Your task to perform on an android device: turn off translation in the chrome app Image 0: 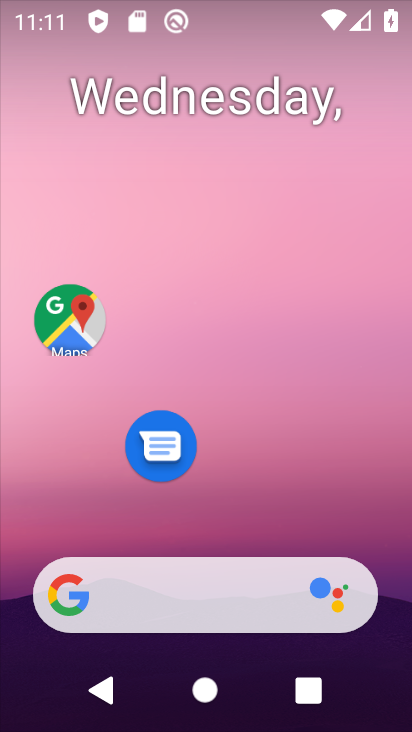
Step 0: drag from (262, 476) to (66, 75)
Your task to perform on an android device: turn off translation in the chrome app Image 1: 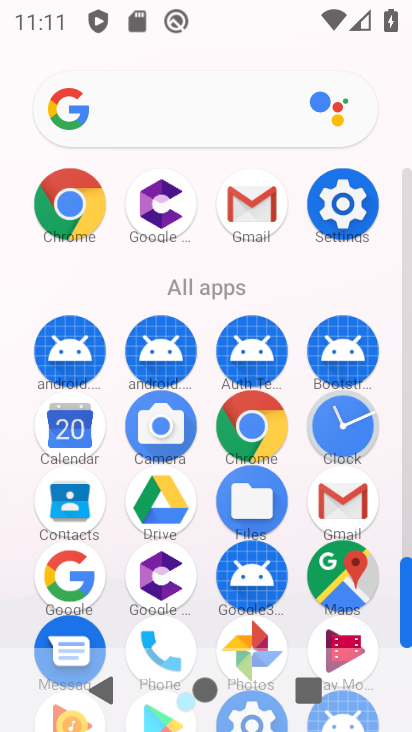
Step 1: click (74, 211)
Your task to perform on an android device: turn off translation in the chrome app Image 2: 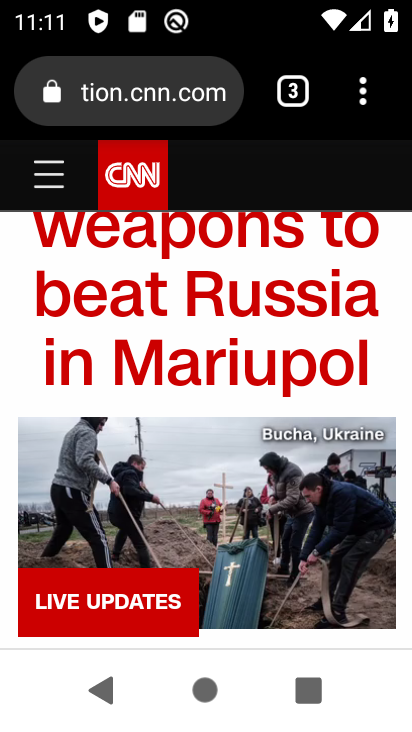
Step 2: drag from (361, 97) to (118, 473)
Your task to perform on an android device: turn off translation in the chrome app Image 3: 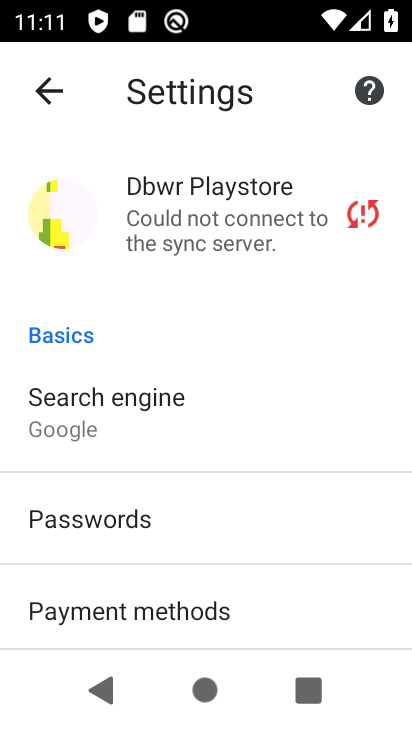
Step 3: drag from (237, 600) to (246, 223)
Your task to perform on an android device: turn off translation in the chrome app Image 4: 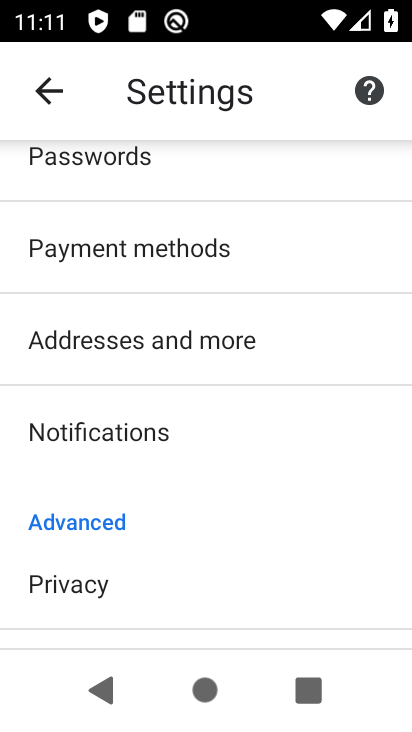
Step 4: drag from (210, 562) to (240, 304)
Your task to perform on an android device: turn off translation in the chrome app Image 5: 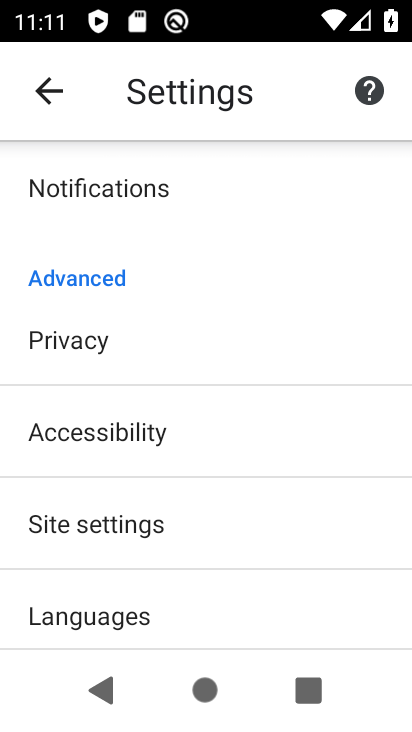
Step 5: click (119, 616)
Your task to perform on an android device: turn off translation in the chrome app Image 6: 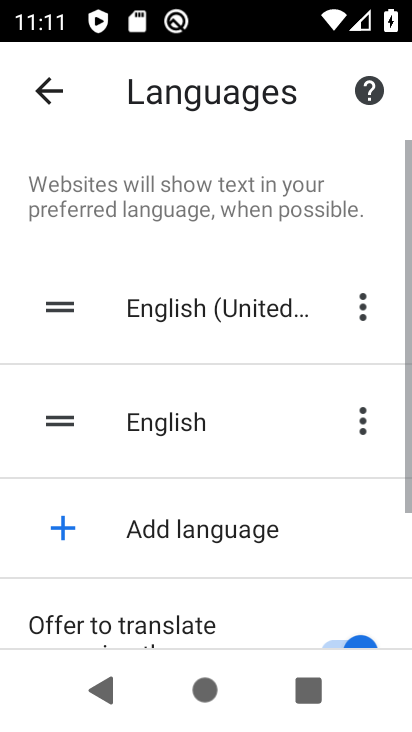
Step 6: drag from (124, 591) to (138, 440)
Your task to perform on an android device: turn off translation in the chrome app Image 7: 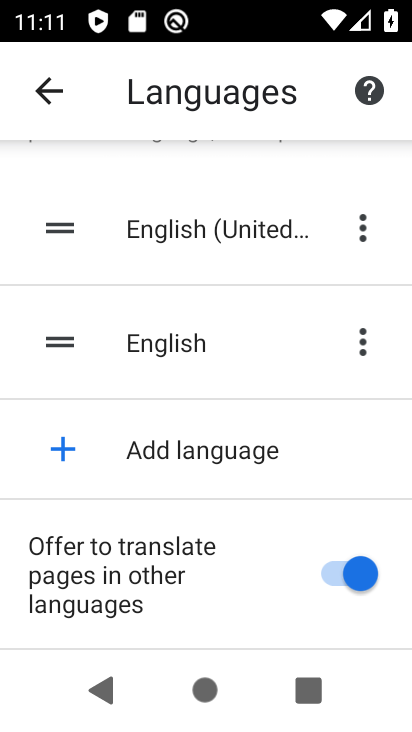
Step 7: click (345, 564)
Your task to perform on an android device: turn off translation in the chrome app Image 8: 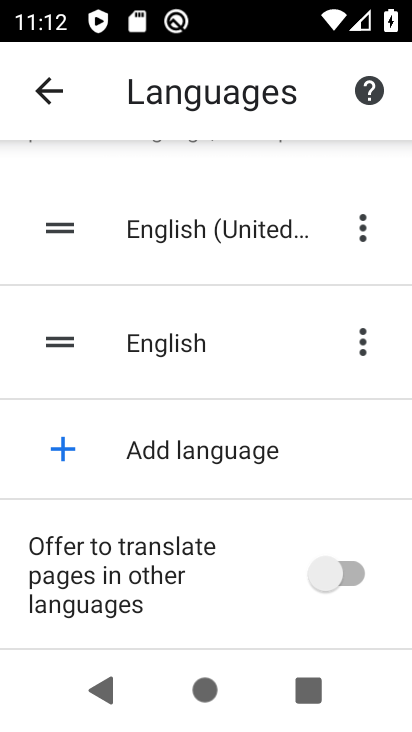
Step 8: task complete